Your task to perform on an android device: change notifications settings Image 0: 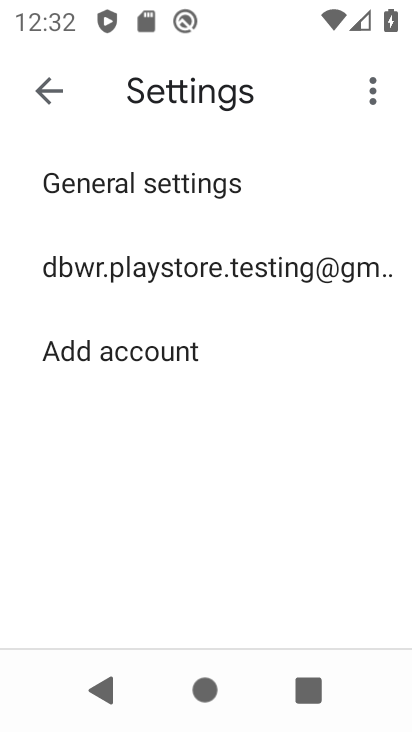
Step 0: press home button
Your task to perform on an android device: change notifications settings Image 1: 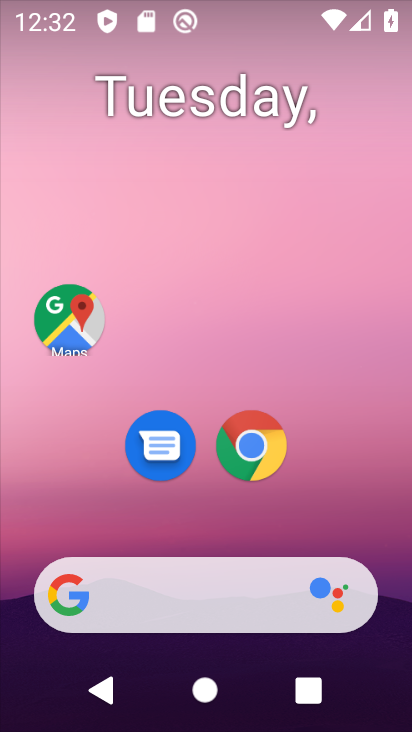
Step 1: drag from (207, 506) to (218, 137)
Your task to perform on an android device: change notifications settings Image 2: 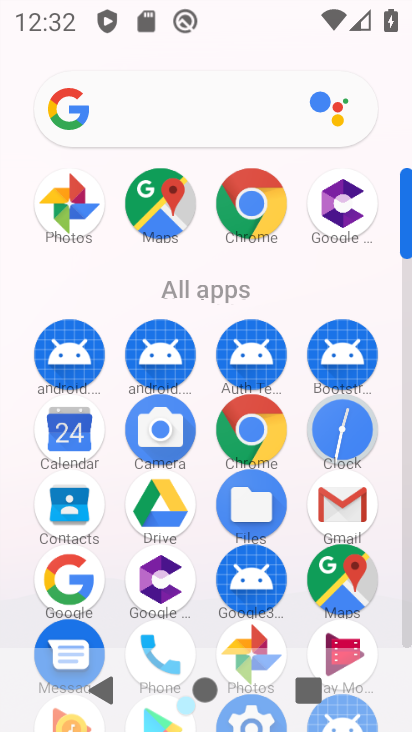
Step 2: drag from (294, 544) to (315, 306)
Your task to perform on an android device: change notifications settings Image 3: 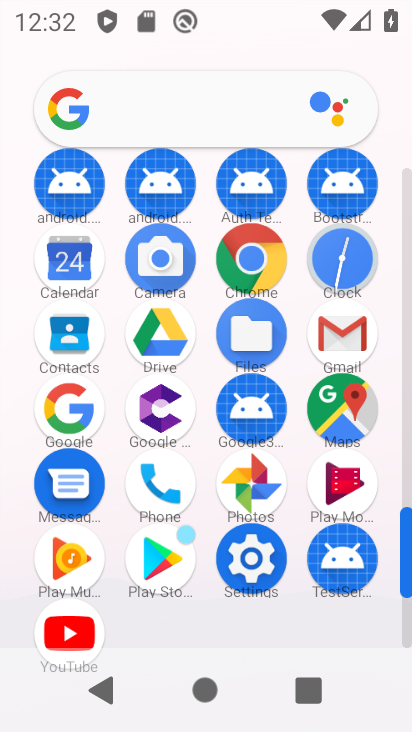
Step 3: click (256, 560)
Your task to perform on an android device: change notifications settings Image 4: 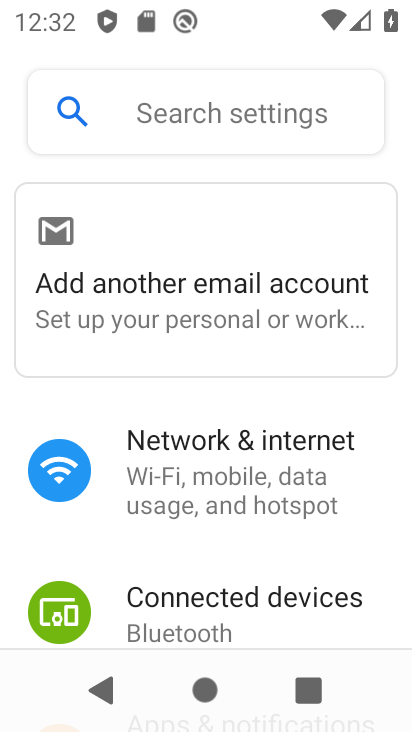
Step 4: drag from (278, 565) to (385, 252)
Your task to perform on an android device: change notifications settings Image 5: 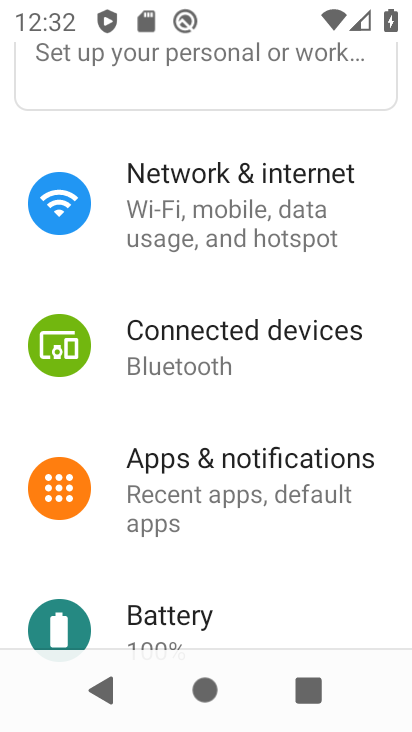
Step 5: click (264, 492)
Your task to perform on an android device: change notifications settings Image 6: 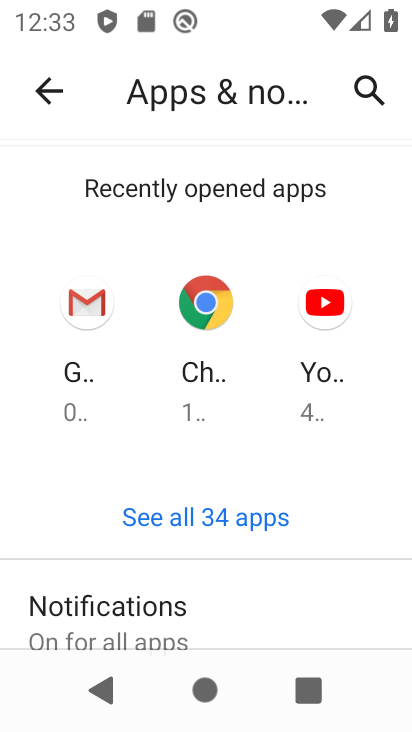
Step 6: task complete